Your task to perform on an android device: Go to Yahoo.com Image 0: 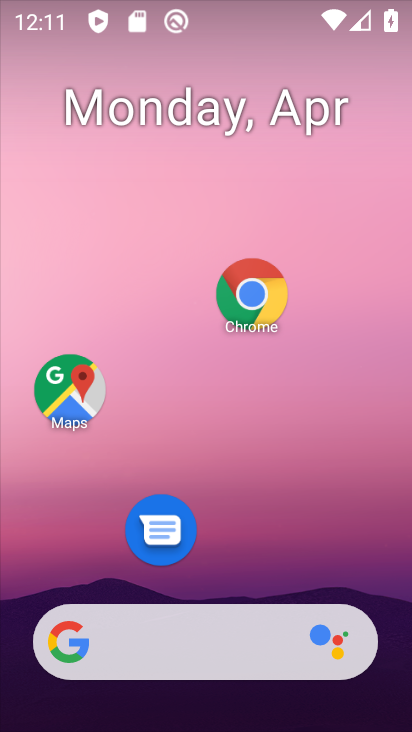
Step 0: click (258, 289)
Your task to perform on an android device: Go to Yahoo.com Image 1: 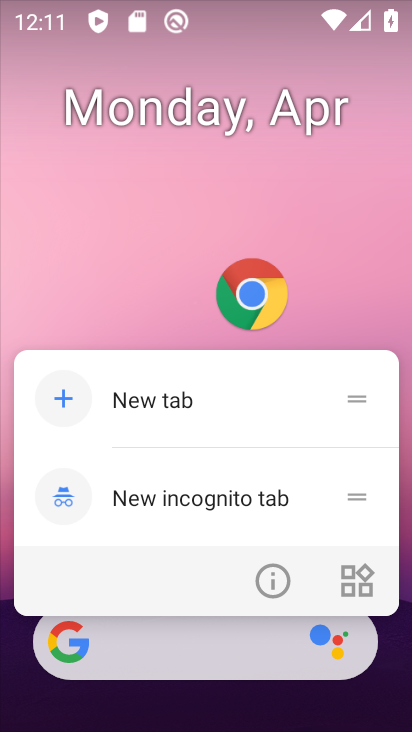
Step 1: click (215, 416)
Your task to perform on an android device: Go to Yahoo.com Image 2: 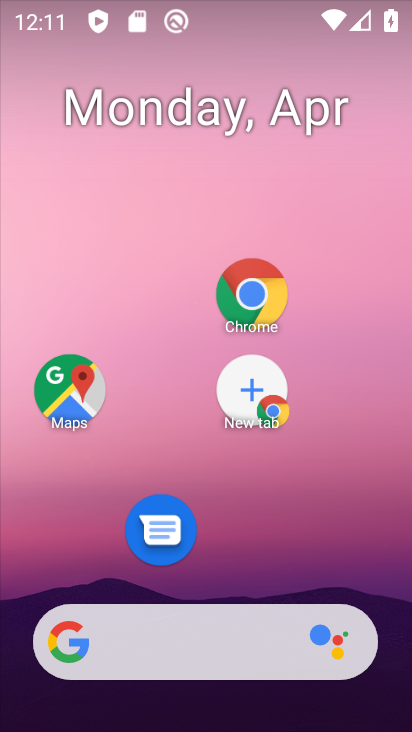
Step 2: click (269, 293)
Your task to perform on an android device: Go to Yahoo.com Image 3: 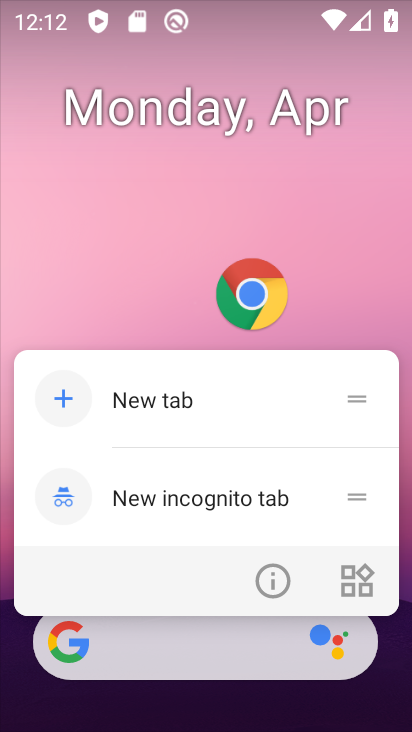
Step 3: click (250, 393)
Your task to perform on an android device: Go to Yahoo.com Image 4: 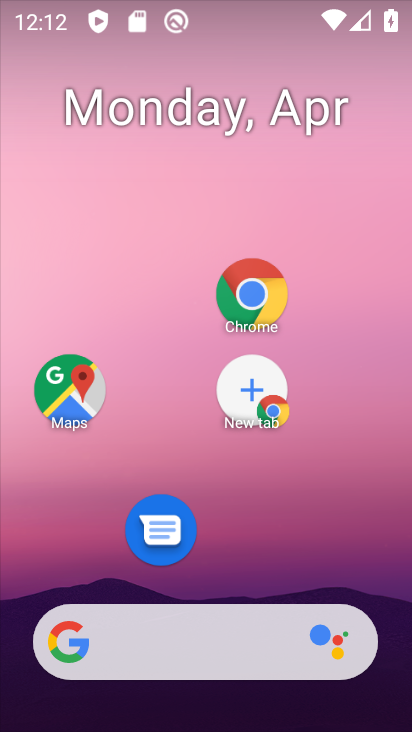
Step 4: click (255, 291)
Your task to perform on an android device: Go to Yahoo.com Image 5: 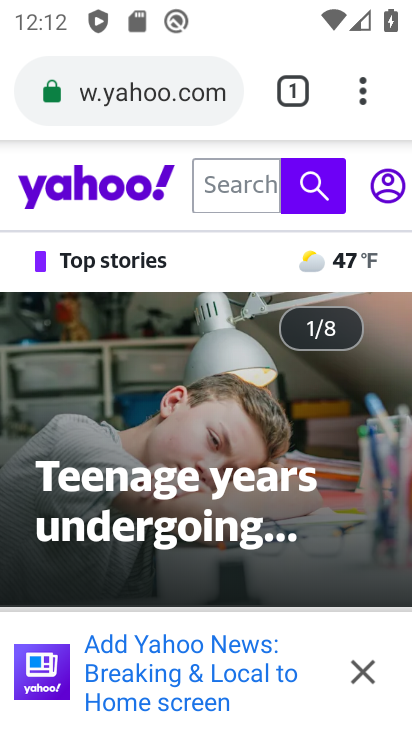
Step 5: click (169, 95)
Your task to perform on an android device: Go to Yahoo.com Image 6: 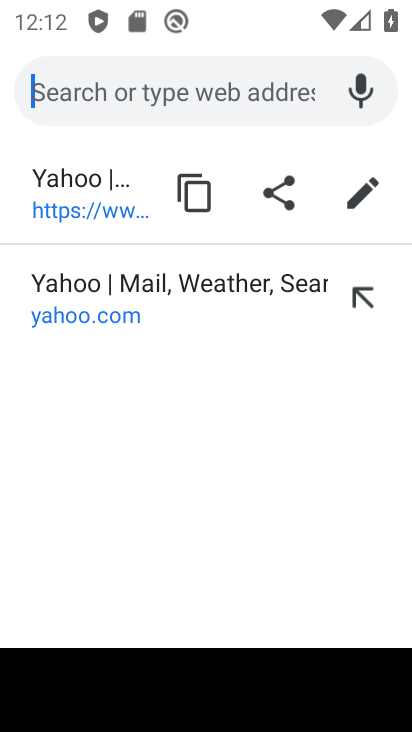
Step 6: type "yahoo.com"
Your task to perform on an android device: Go to Yahoo.com Image 7: 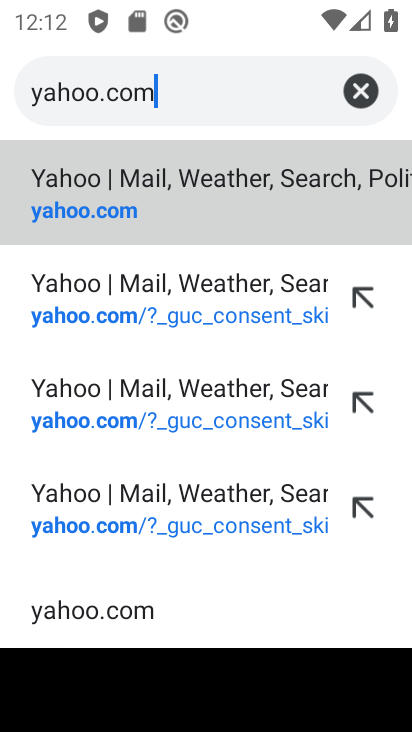
Step 7: click (128, 588)
Your task to perform on an android device: Go to Yahoo.com Image 8: 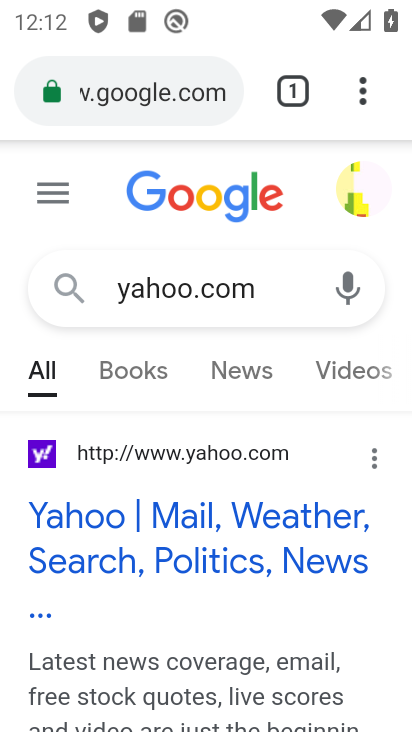
Step 8: task complete